Your task to perform on an android device: Go to Wikipedia Image 0: 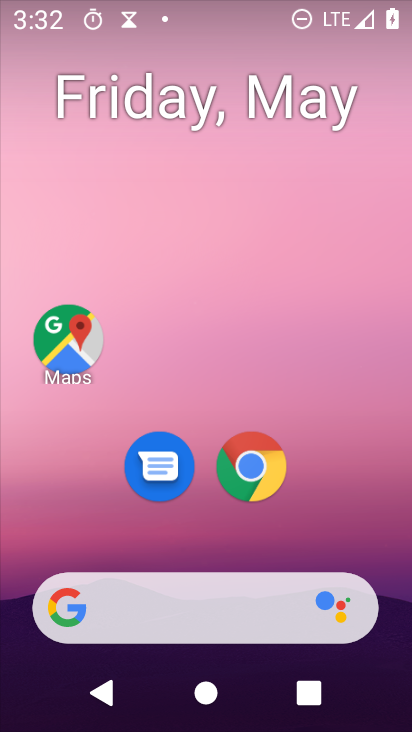
Step 0: drag from (348, 287) to (407, 5)
Your task to perform on an android device: Go to Wikipedia Image 1: 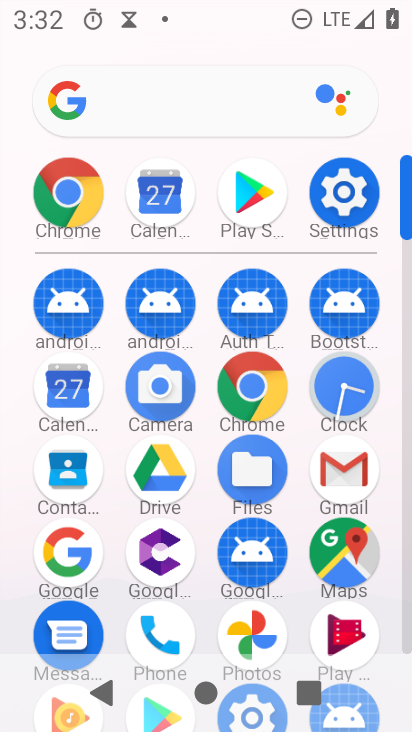
Step 1: click (233, 382)
Your task to perform on an android device: Go to Wikipedia Image 2: 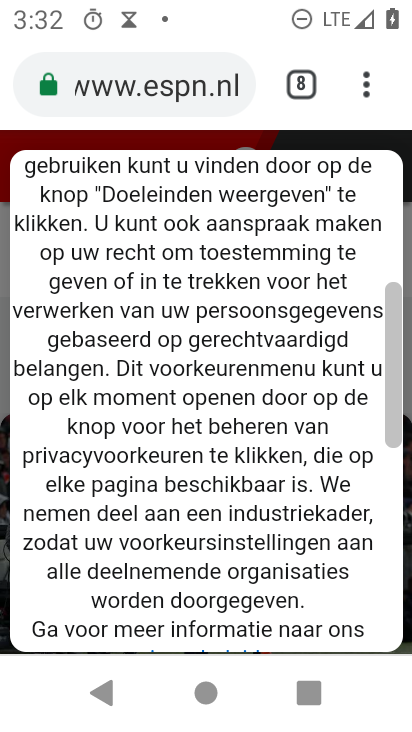
Step 2: click (184, 90)
Your task to perform on an android device: Go to Wikipedia Image 3: 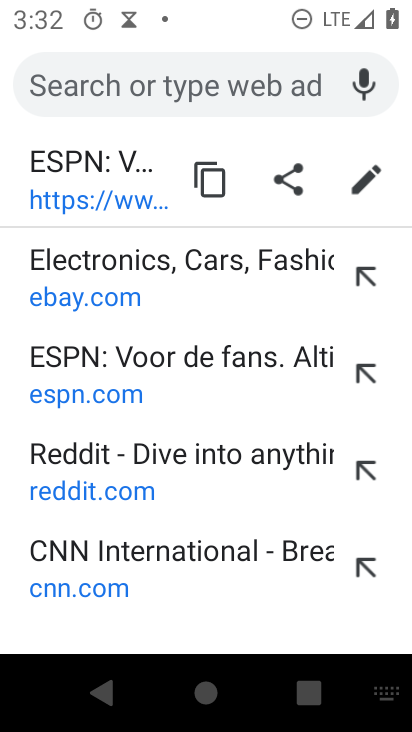
Step 3: type "wikipedia"
Your task to perform on an android device: Go to Wikipedia Image 4: 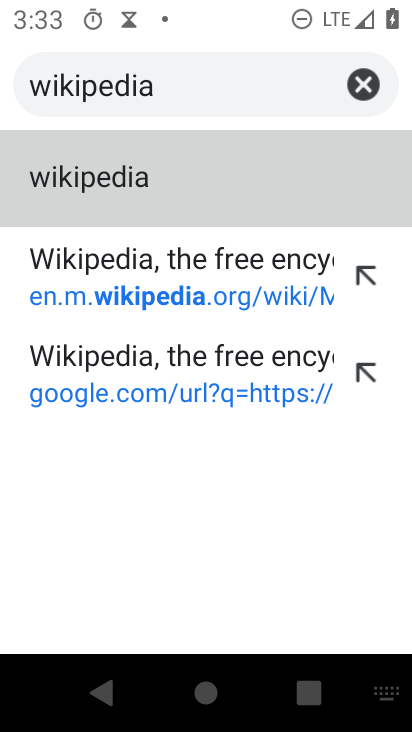
Step 4: click (175, 317)
Your task to perform on an android device: Go to Wikipedia Image 5: 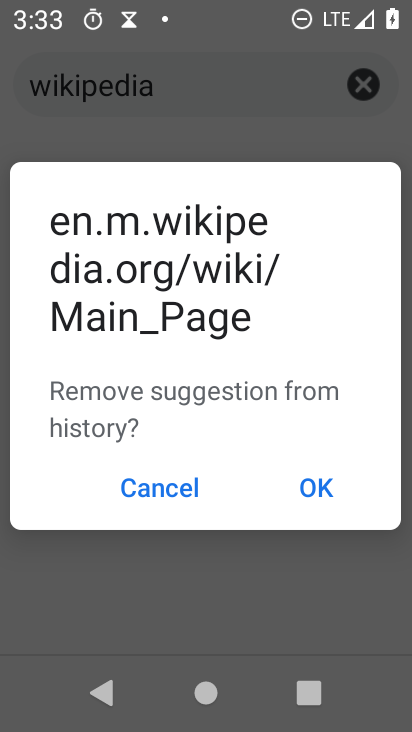
Step 5: click (141, 495)
Your task to perform on an android device: Go to Wikipedia Image 6: 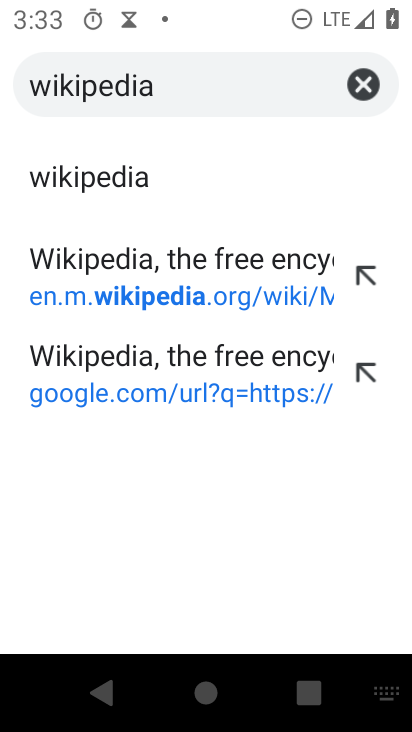
Step 6: click (114, 308)
Your task to perform on an android device: Go to Wikipedia Image 7: 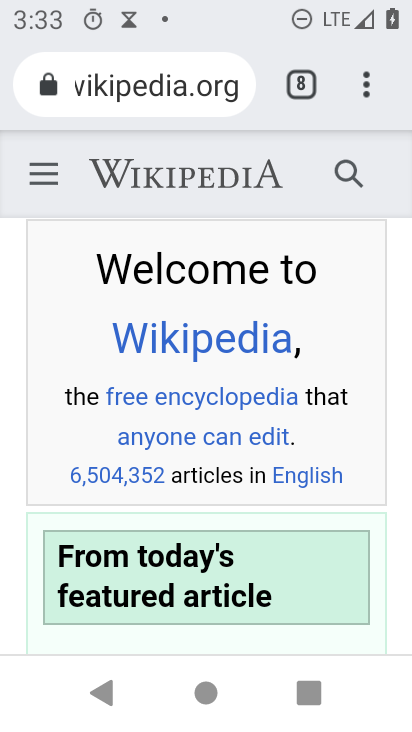
Step 7: task complete